Your task to perform on an android device: turn on showing notifications on the lock screen Image 0: 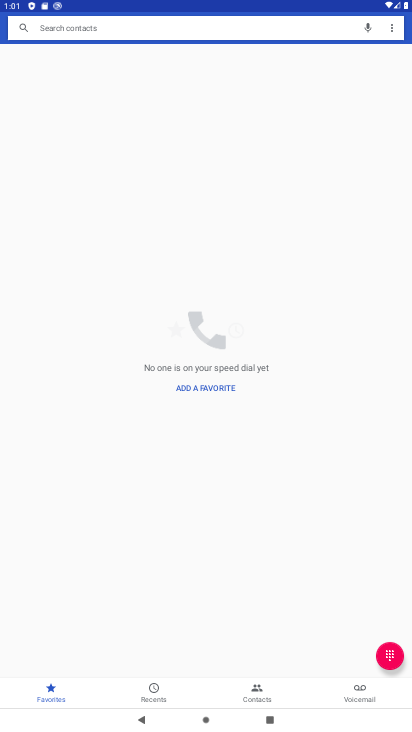
Step 0: press home button
Your task to perform on an android device: turn on showing notifications on the lock screen Image 1: 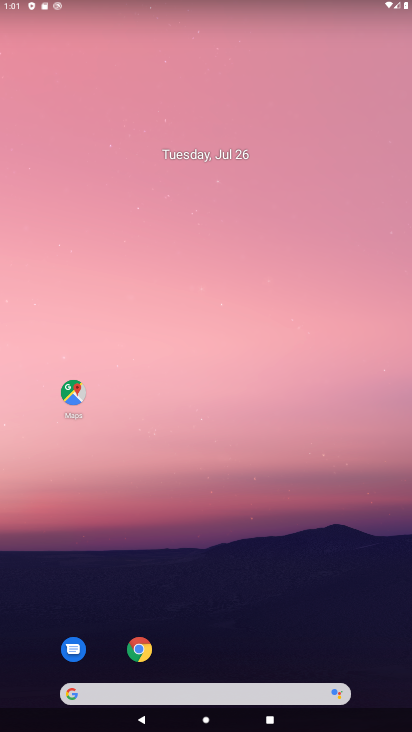
Step 1: drag from (359, 617) to (240, 82)
Your task to perform on an android device: turn on showing notifications on the lock screen Image 2: 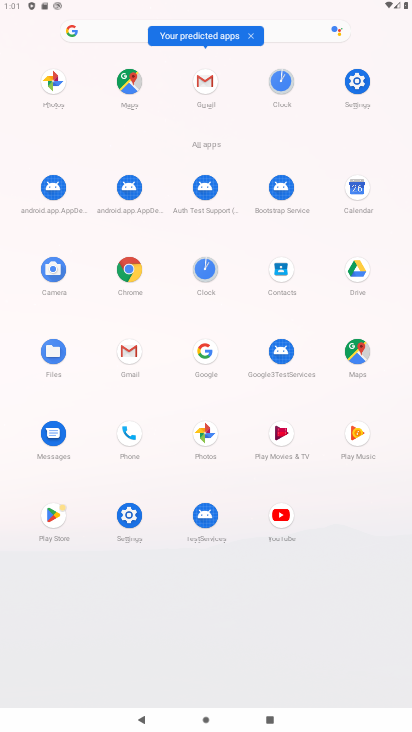
Step 2: click (132, 515)
Your task to perform on an android device: turn on showing notifications on the lock screen Image 3: 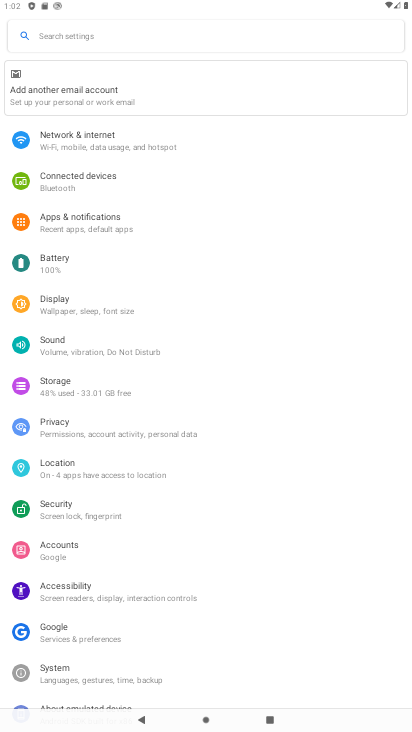
Step 3: click (87, 224)
Your task to perform on an android device: turn on showing notifications on the lock screen Image 4: 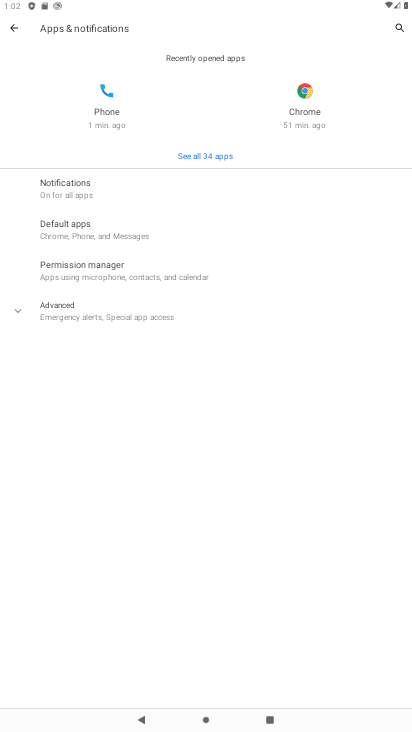
Step 4: click (59, 309)
Your task to perform on an android device: turn on showing notifications on the lock screen Image 5: 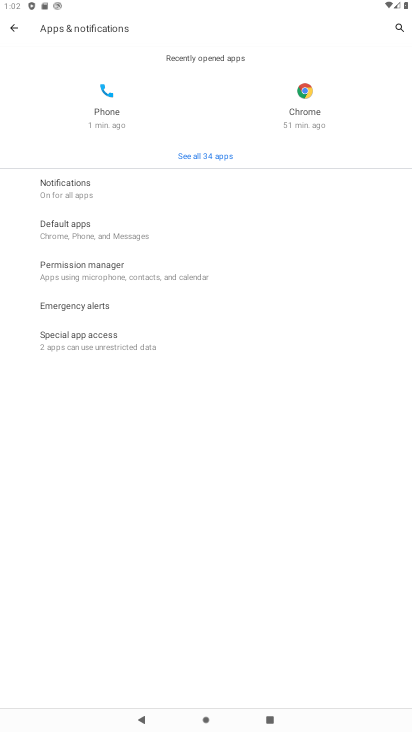
Step 5: click (105, 186)
Your task to perform on an android device: turn on showing notifications on the lock screen Image 6: 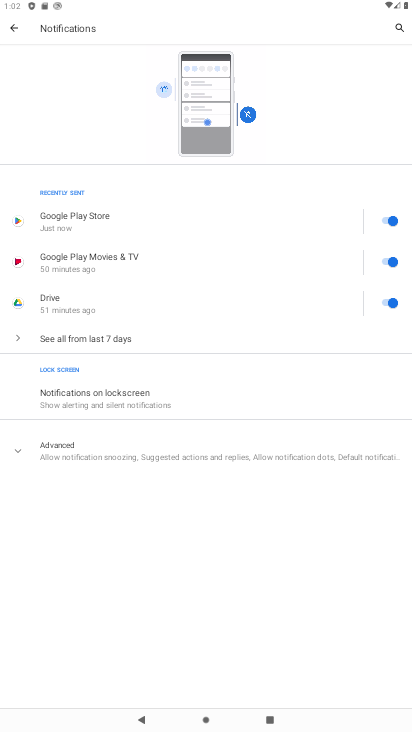
Step 6: click (96, 389)
Your task to perform on an android device: turn on showing notifications on the lock screen Image 7: 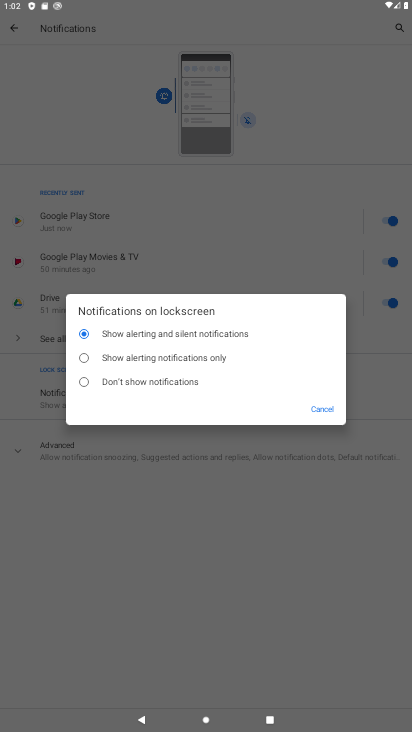
Step 7: task complete